Your task to perform on an android device: Open Amazon Image 0: 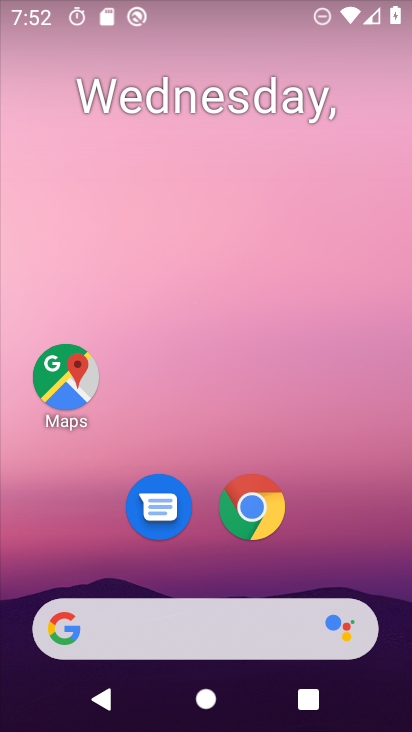
Step 0: drag from (254, 659) to (191, 133)
Your task to perform on an android device: Open Amazon Image 1: 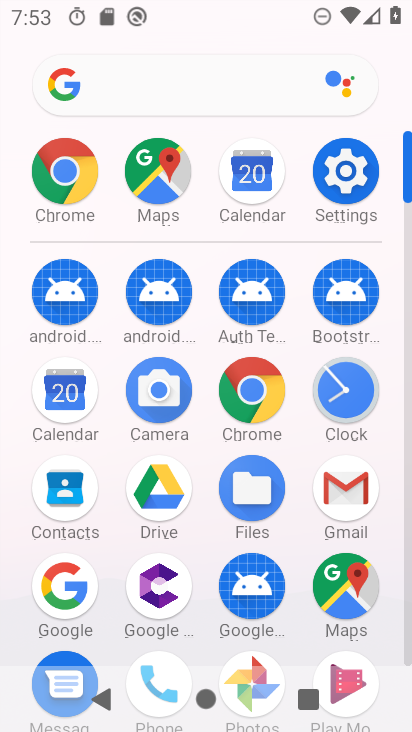
Step 1: click (52, 172)
Your task to perform on an android device: Open Amazon Image 2: 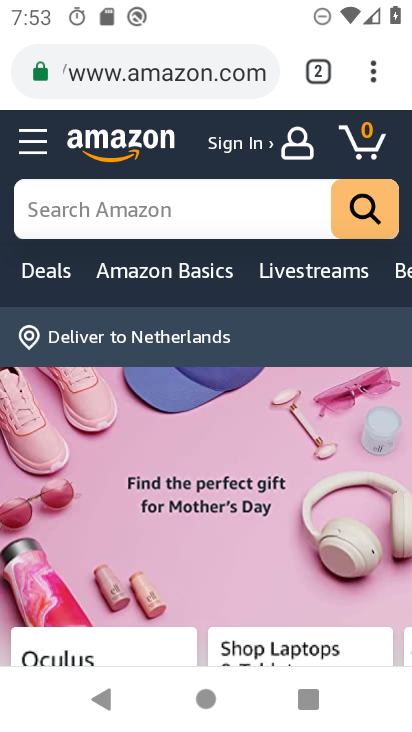
Step 2: task complete